Your task to perform on an android device: turn on wifi Image 0: 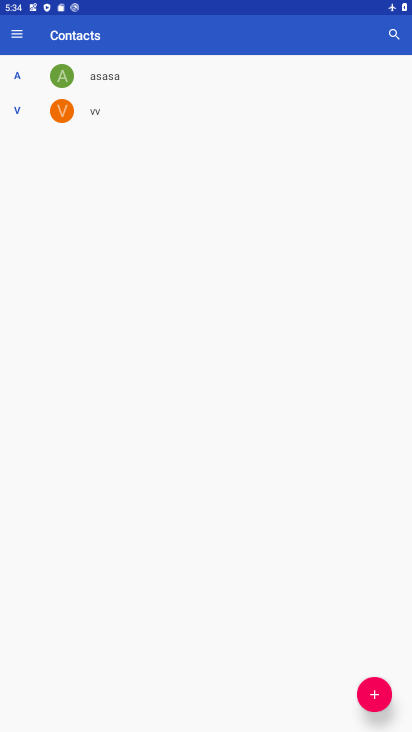
Step 0: press home button
Your task to perform on an android device: turn on wifi Image 1: 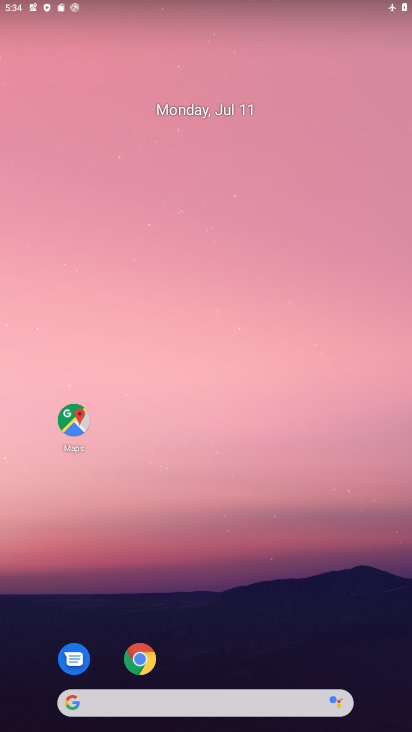
Step 1: drag from (364, 654) to (337, 74)
Your task to perform on an android device: turn on wifi Image 2: 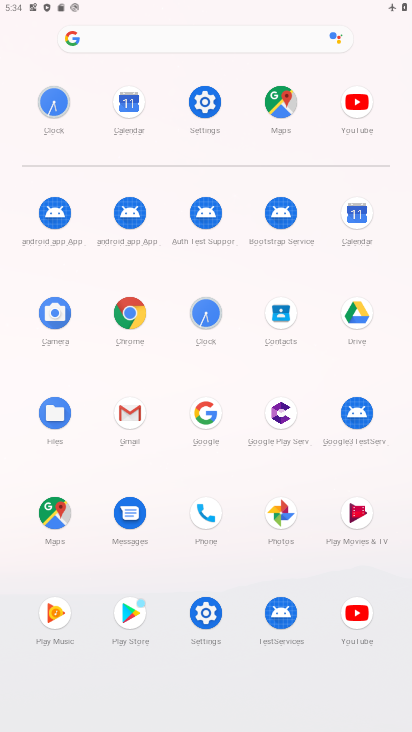
Step 2: click (203, 612)
Your task to perform on an android device: turn on wifi Image 3: 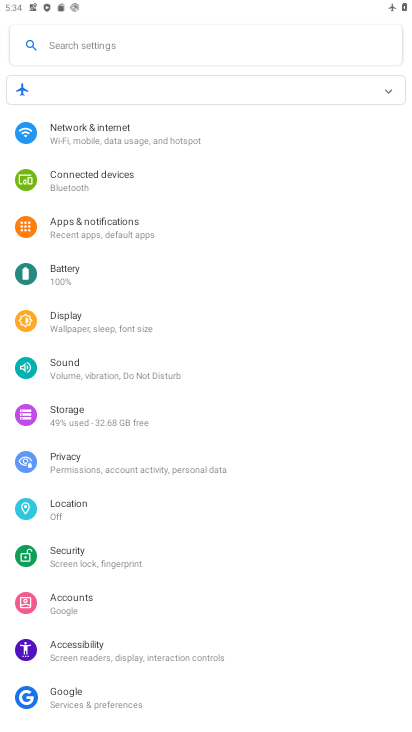
Step 3: click (89, 133)
Your task to perform on an android device: turn on wifi Image 4: 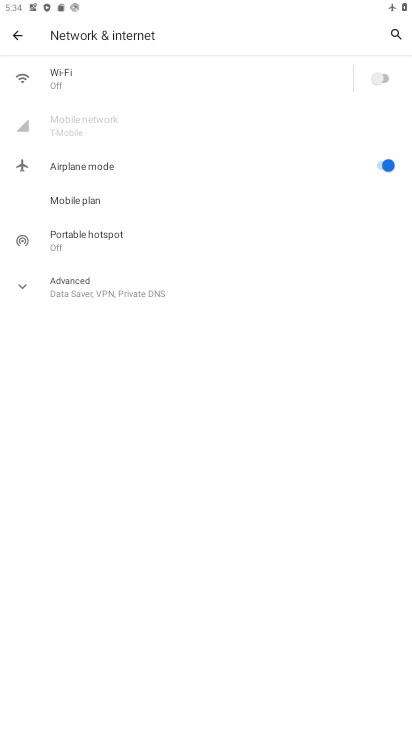
Step 4: click (383, 79)
Your task to perform on an android device: turn on wifi Image 5: 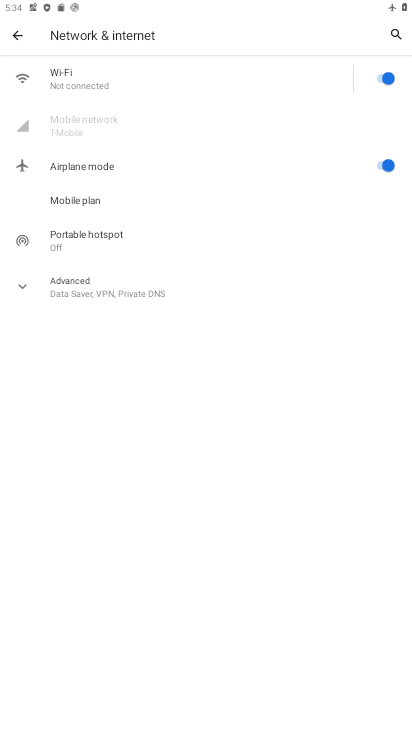
Step 5: task complete